Your task to perform on an android device: Go to privacy settings Image 0: 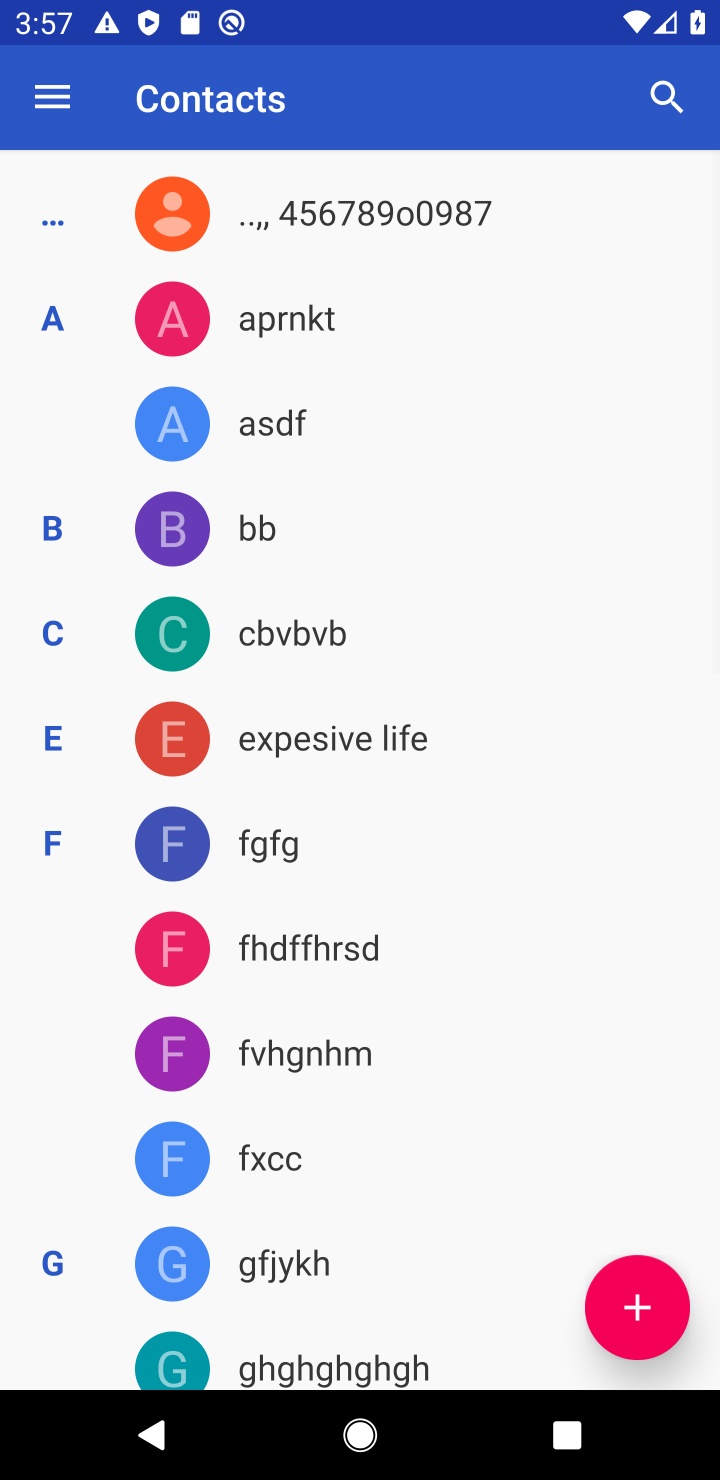
Step 0: press home button
Your task to perform on an android device: Go to privacy settings Image 1: 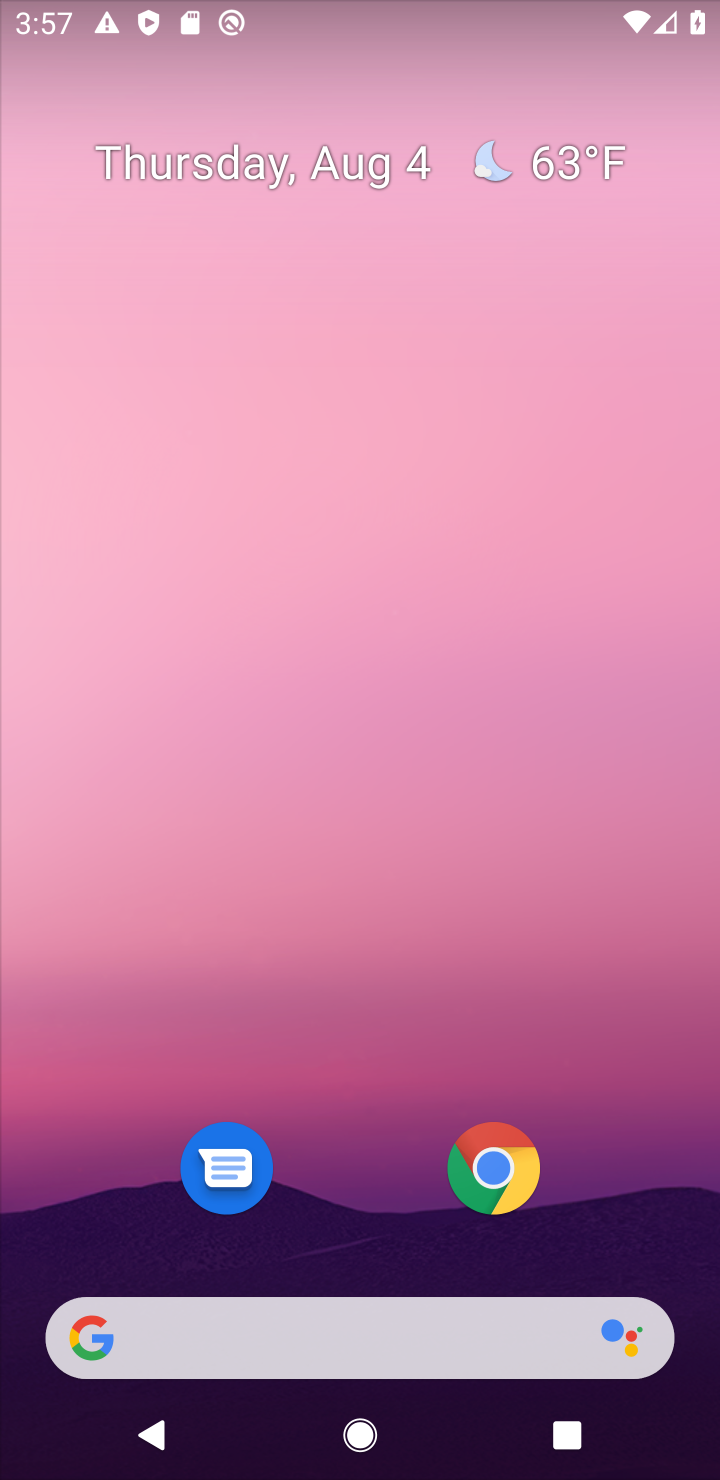
Step 1: drag from (345, 1273) to (681, 528)
Your task to perform on an android device: Go to privacy settings Image 2: 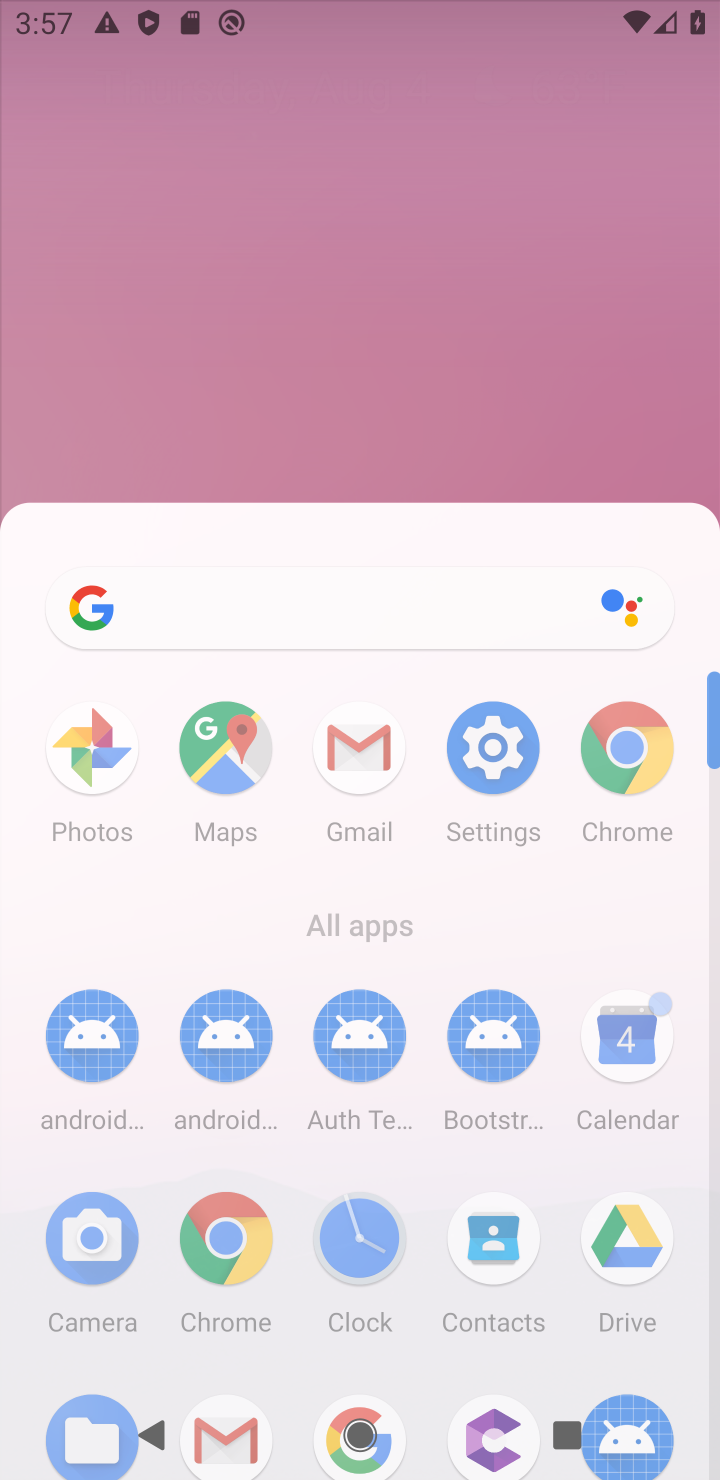
Step 2: click (501, 266)
Your task to perform on an android device: Go to privacy settings Image 3: 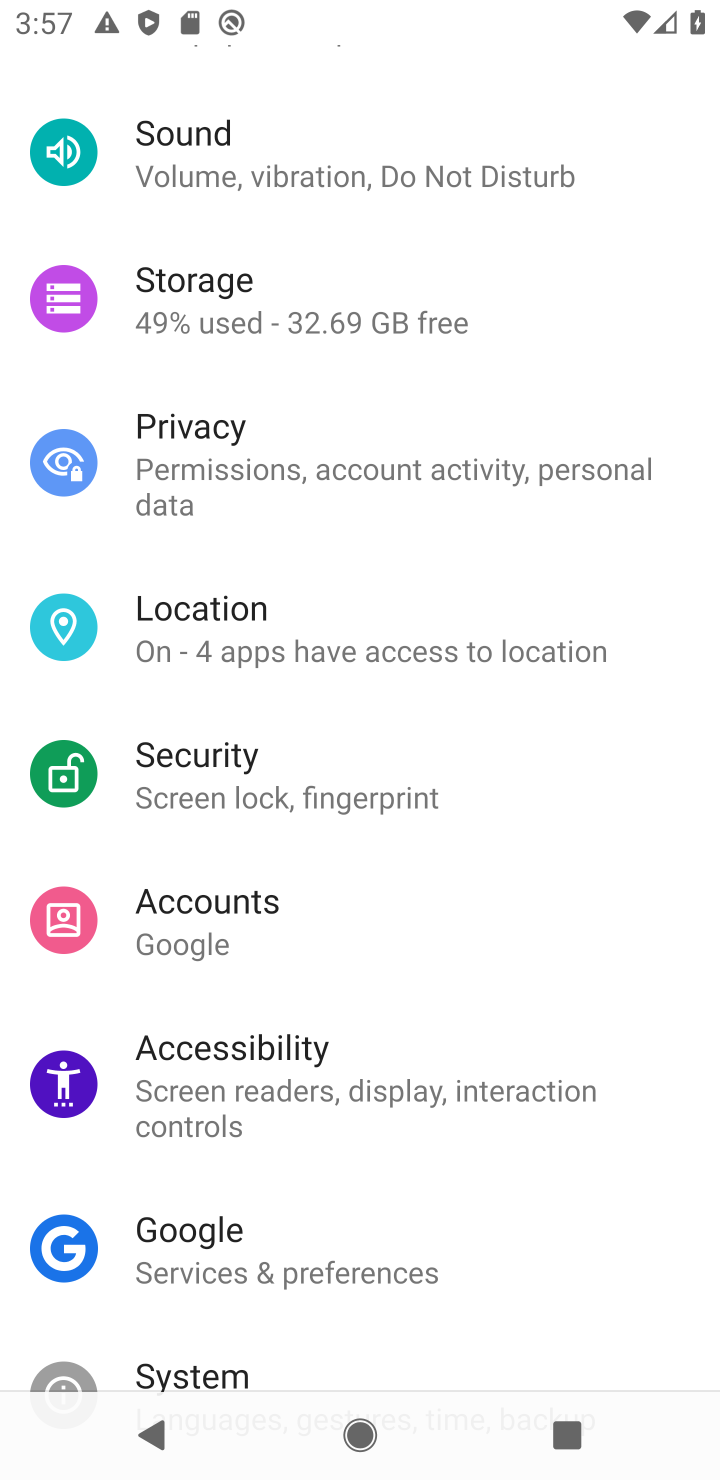
Step 3: drag from (436, 1183) to (347, 415)
Your task to perform on an android device: Go to privacy settings Image 4: 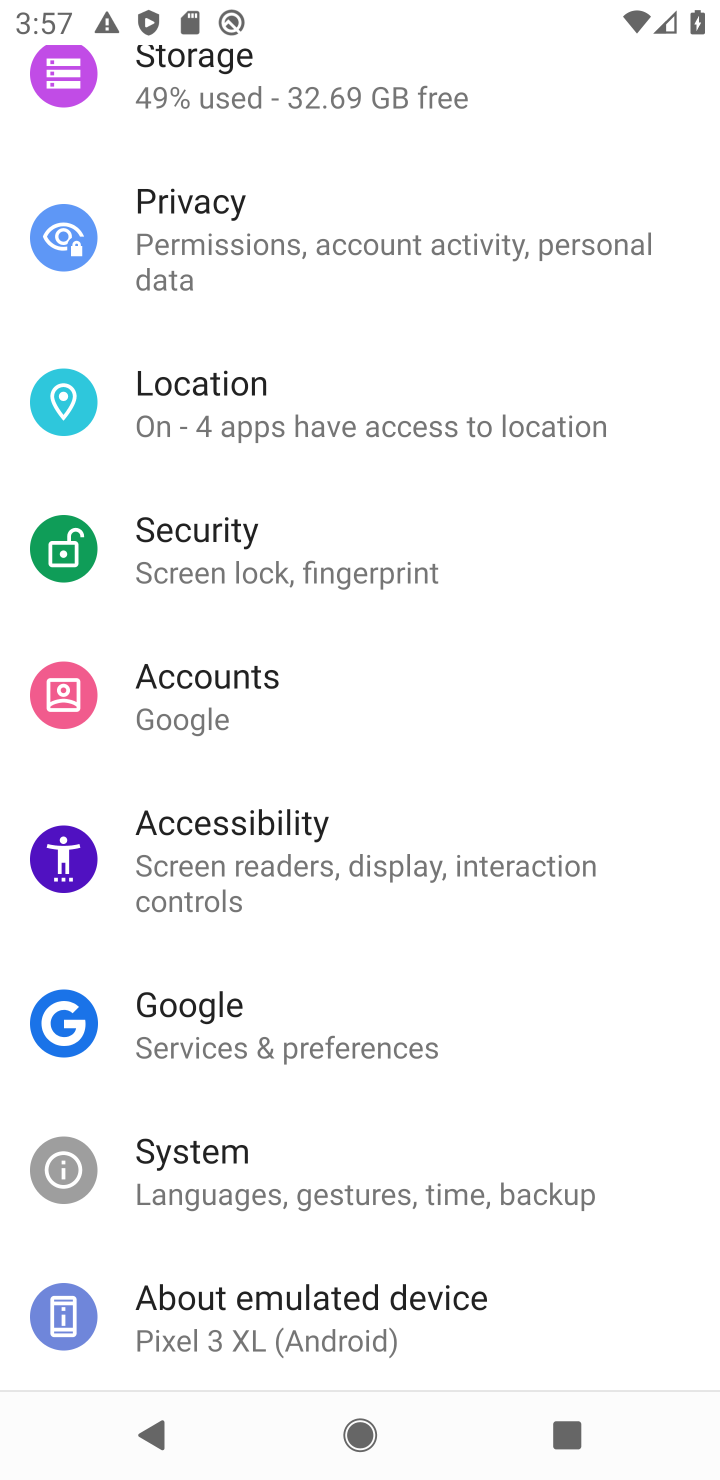
Step 4: click (328, 249)
Your task to perform on an android device: Go to privacy settings Image 5: 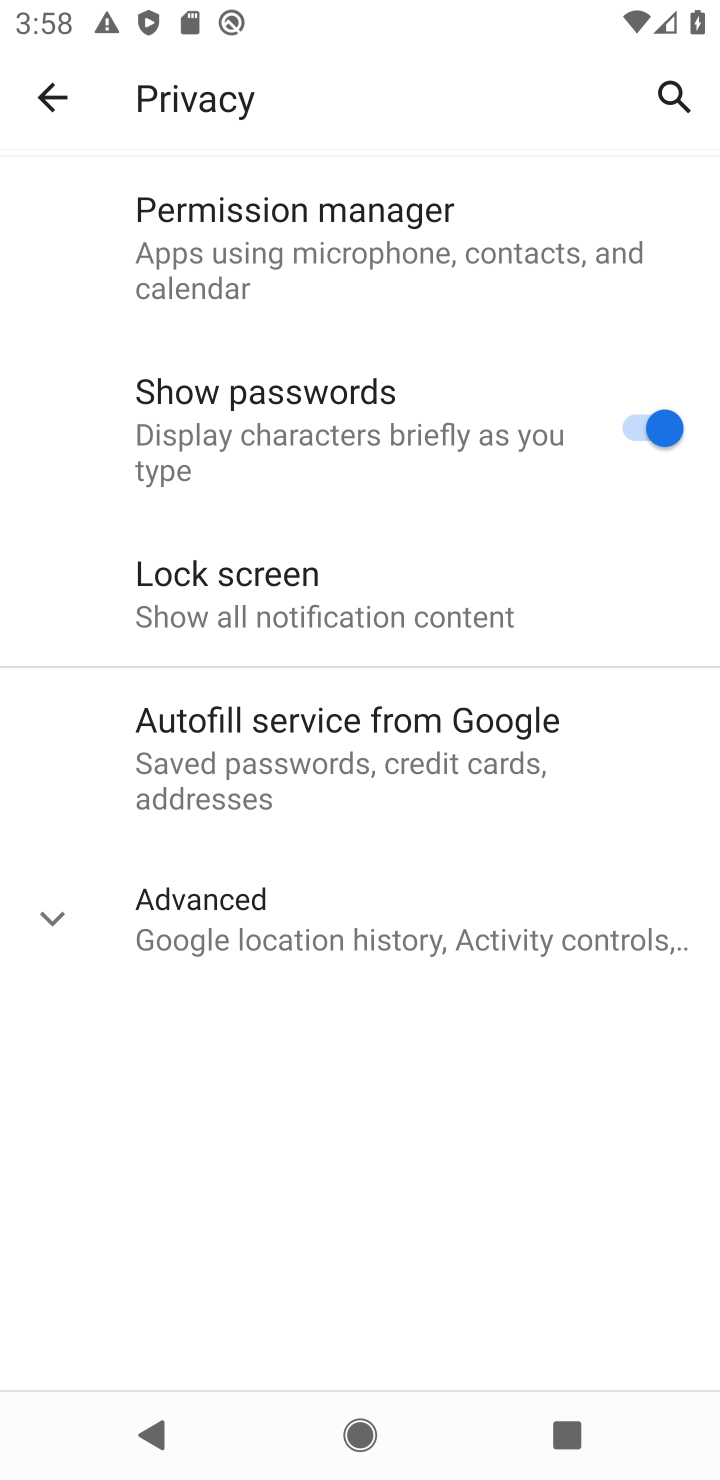
Step 5: task complete